Your task to perform on an android device: change the clock display to show seconds Image 0: 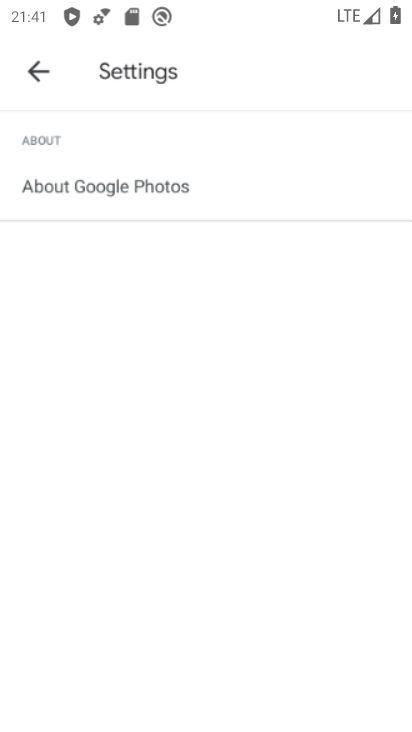
Step 0: press home button
Your task to perform on an android device: change the clock display to show seconds Image 1: 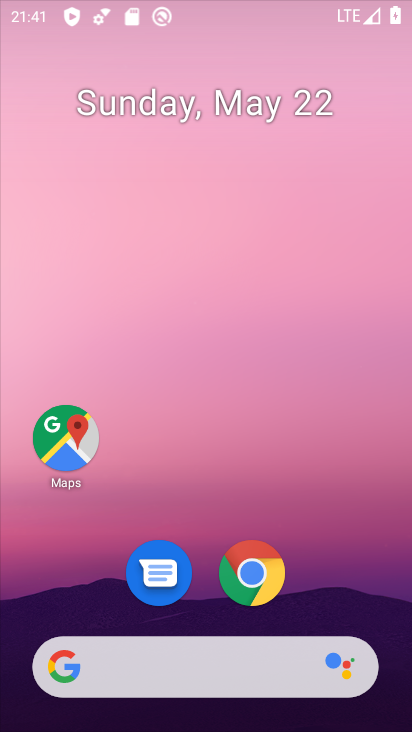
Step 1: drag from (301, 600) to (404, 297)
Your task to perform on an android device: change the clock display to show seconds Image 2: 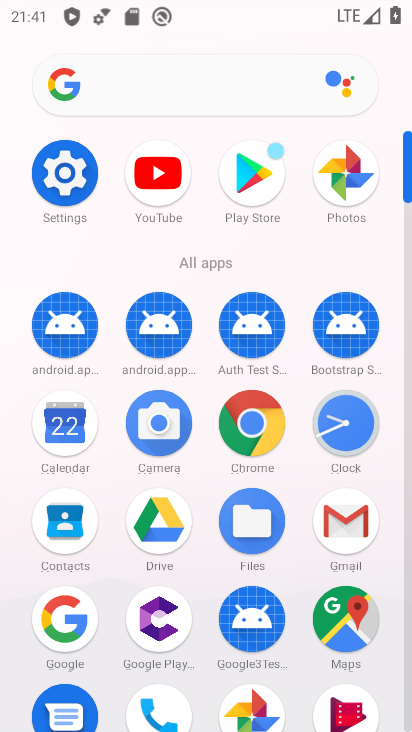
Step 2: click (377, 407)
Your task to perform on an android device: change the clock display to show seconds Image 3: 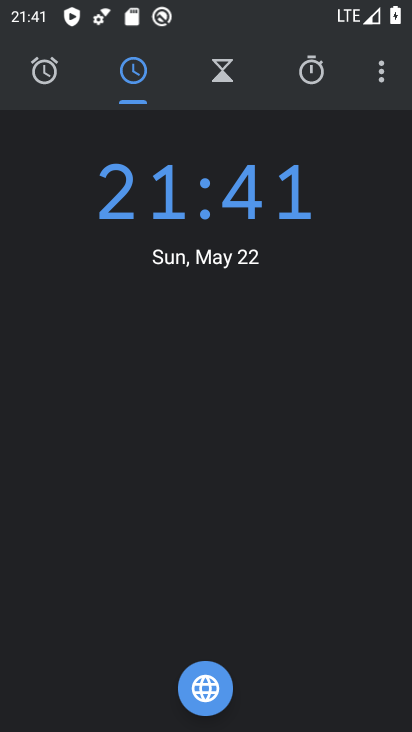
Step 3: click (385, 74)
Your task to perform on an android device: change the clock display to show seconds Image 4: 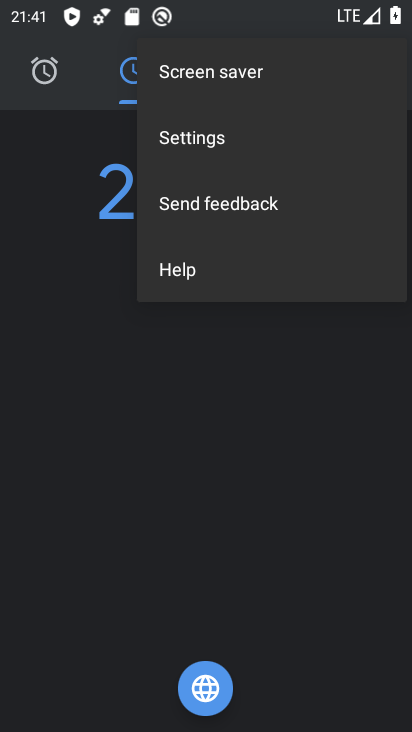
Step 4: click (205, 160)
Your task to perform on an android device: change the clock display to show seconds Image 5: 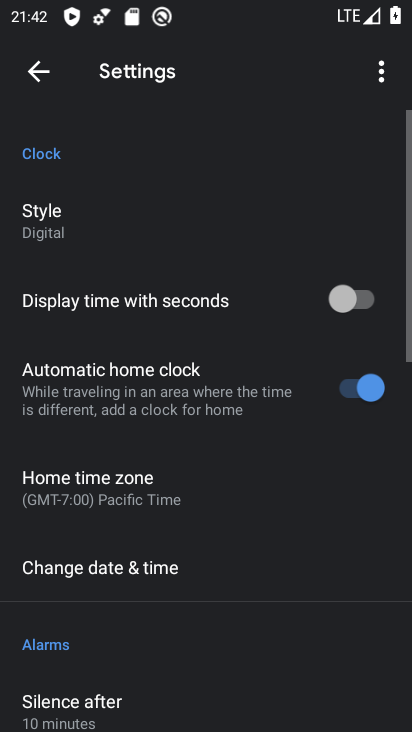
Step 5: click (81, 297)
Your task to perform on an android device: change the clock display to show seconds Image 6: 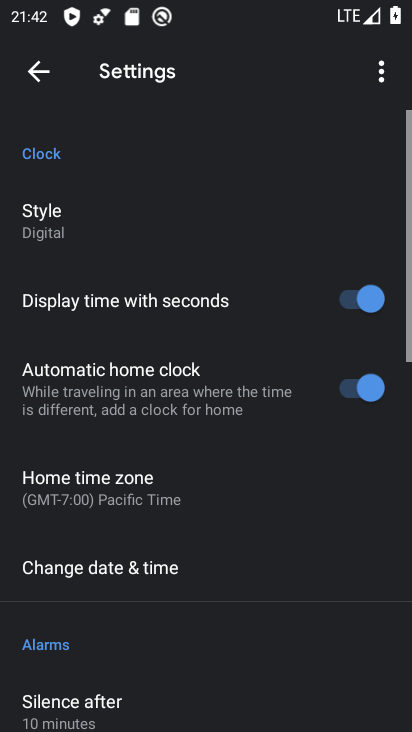
Step 6: task complete